Your task to perform on an android device: Open Maps and search for coffee Image 0: 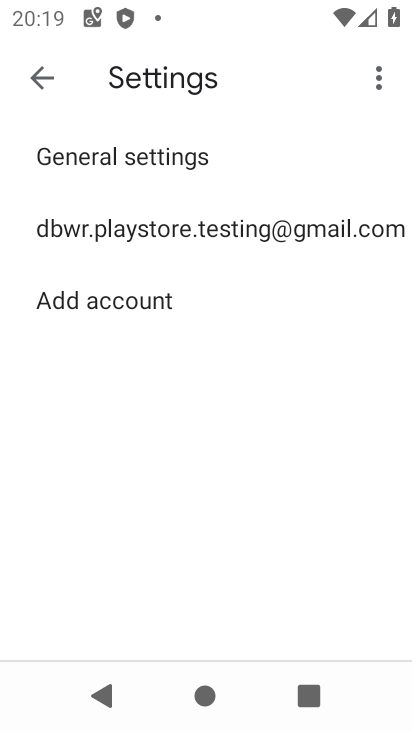
Step 0: press home button
Your task to perform on an android device: Open Maps and search for coffee Image 1: 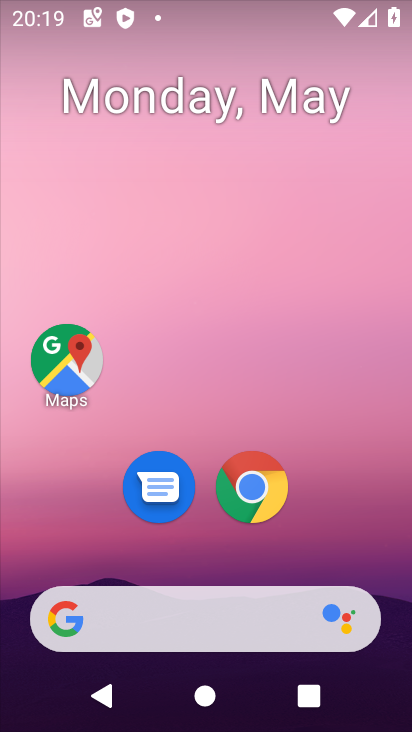
Step 1: drag from (367, 534) to (354, 150)
Your task to perform on an android device: Open Maps and search for coffee Image 2: 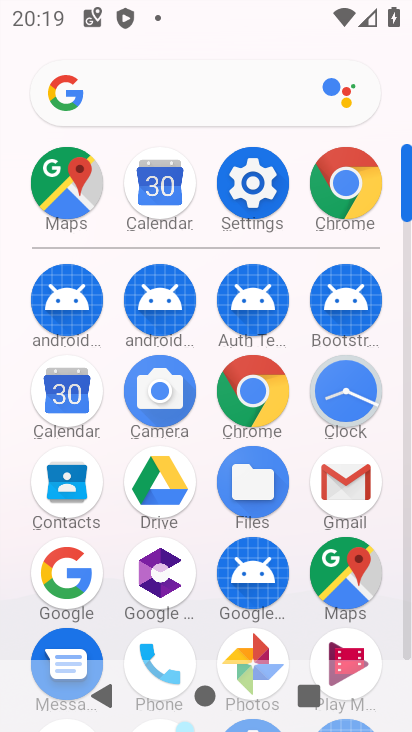
Step 2: click (364, 578)
Your task to perform on an android device: Open Maps and search for coffee Image 3: 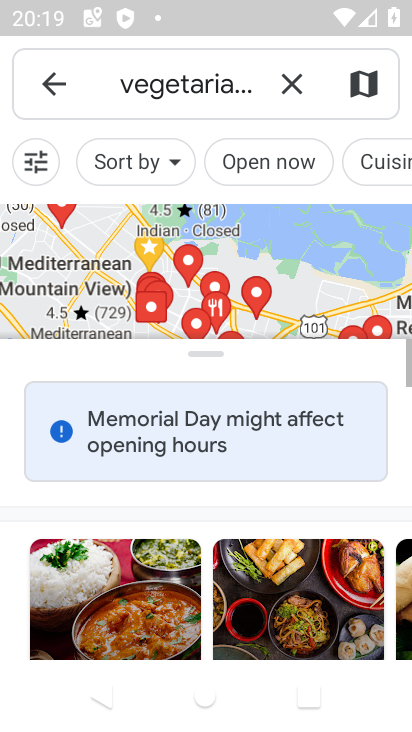
Step 3: click (298, 83)
Your task to perform on an android device: Open Maps and search for coffee Image 4: 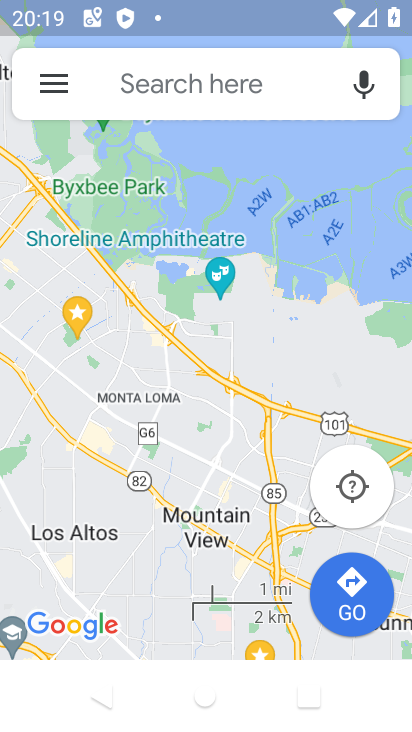
Step 4: click (234, 84)
Your task to perform on an android device: Open Maps and search for coffee Image 5: 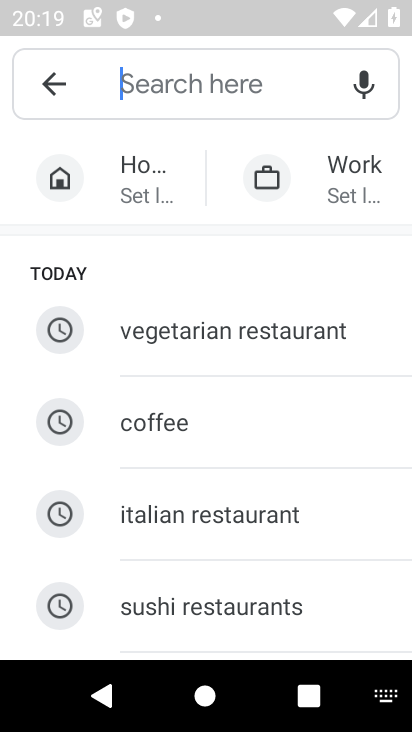
Step 5: type "coffee"
Your task to perform on an android device: Open Maps and search for coffee Image 6: 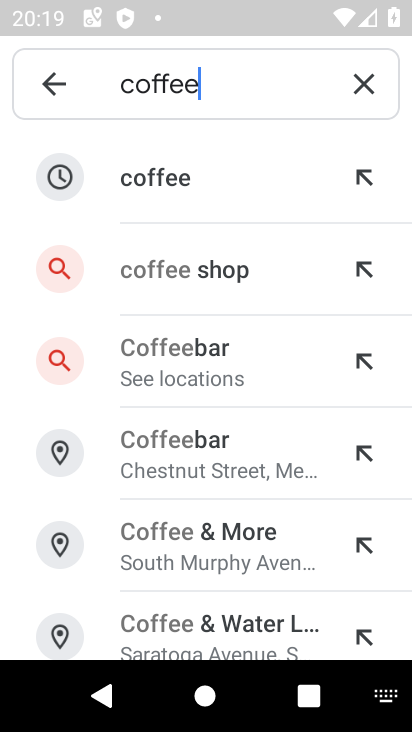
Step 6: click (239, 178)
Your task to perform on an android device: Open Maps and search for coffee Image 7: 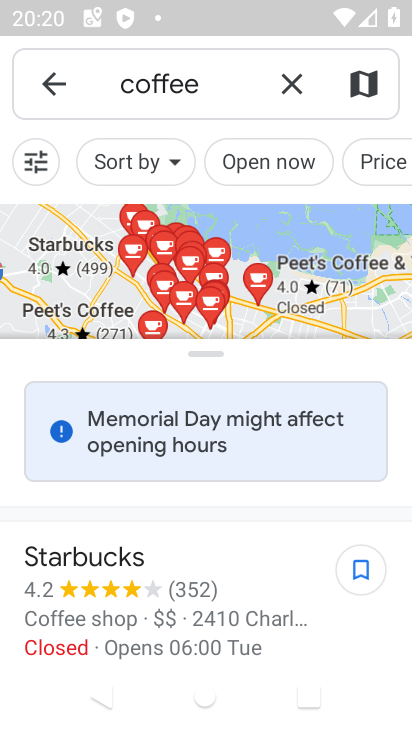
Step 7: task complete